Your task to perform on an android device: change your default location settings in chrome Image 0: 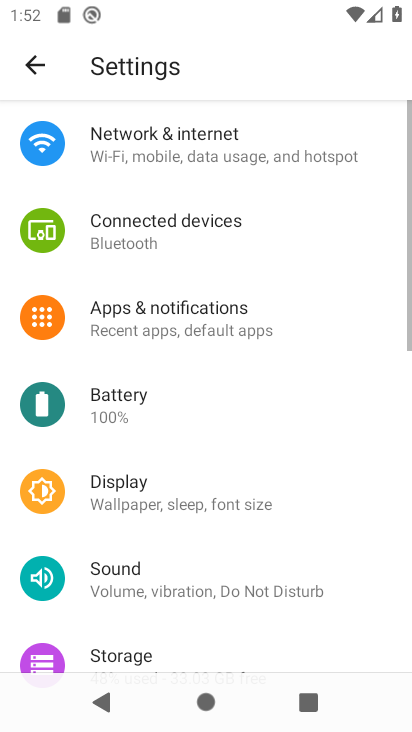
Step 0: press home button
Your task to perform on an android device: change your default location settings in chrome Image 1: 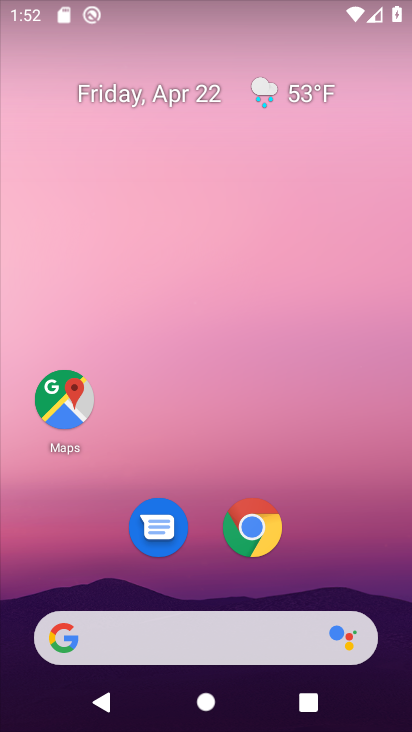
Step 1: click (268, 521)
Your task to perform on an android device: change your default location settings in chrome Image 2: 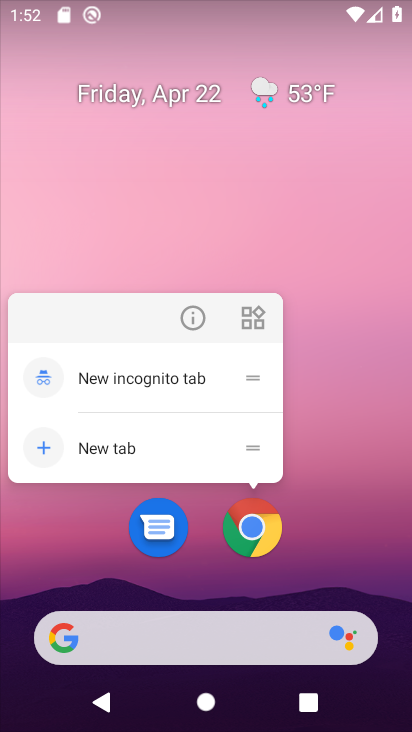
Step 2: click (262, 521)
Your task to perform on an android device: change your default location settings in chrome Image 3: 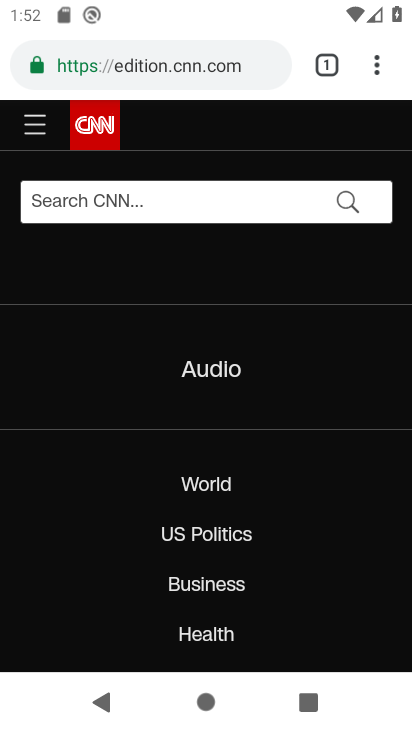
Step 3: click (378, 86)
Your task to perform on an android device: change your default location settings in chrome Image 4: 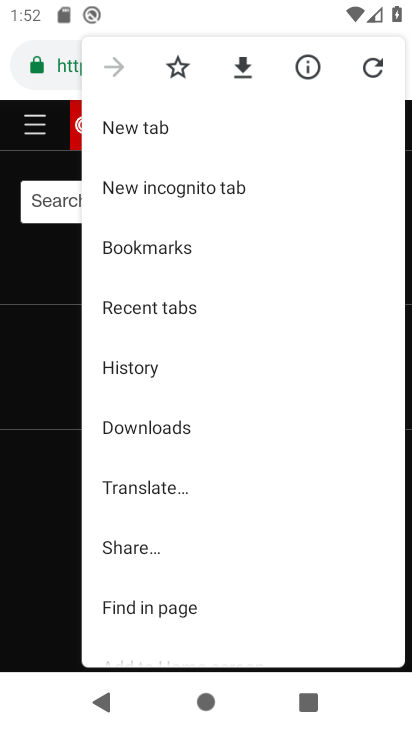
Step 4: drag from (232, 604) to (229, 224)
Your task to perform on an android device: change your default location settings in chrome Image 5: 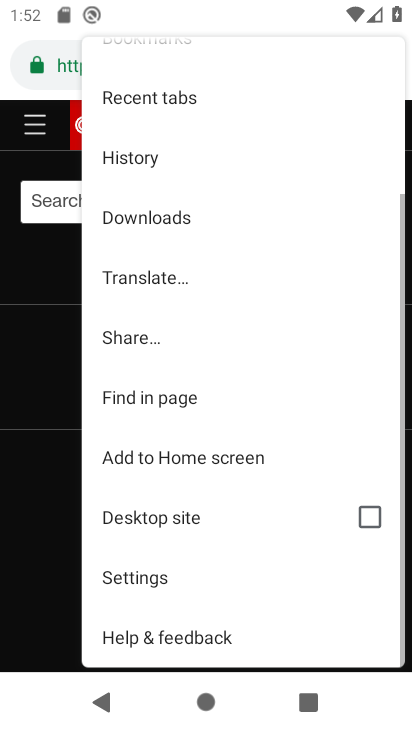
Step 5: click (155, 573)
Your task to perform on an android device: change your default location settings in chrome Image 6: 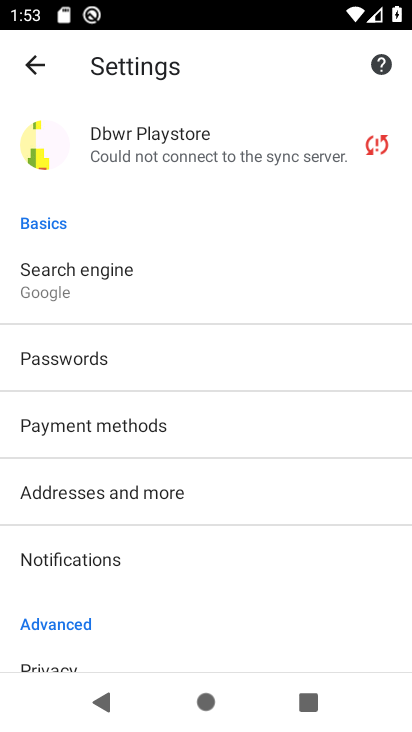
Step 6: drag from (138, 581) to (172, 200)
Your task to perform on an android device: change your default location settings in chrome Image 7: 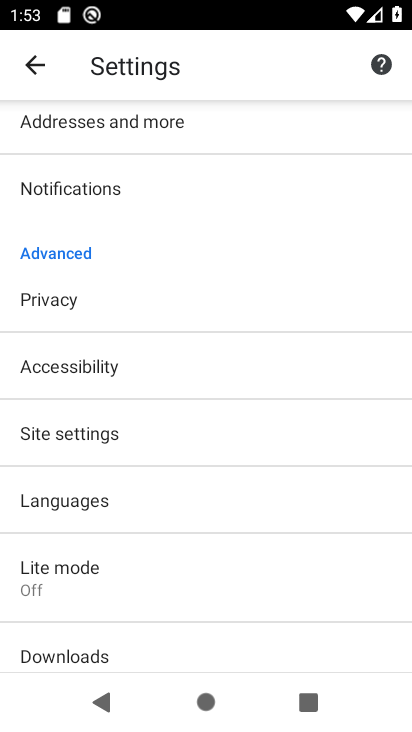
Step 7: click (112, 440)
Your task to perform on an android device: change your default location settings in chrome Image 8: 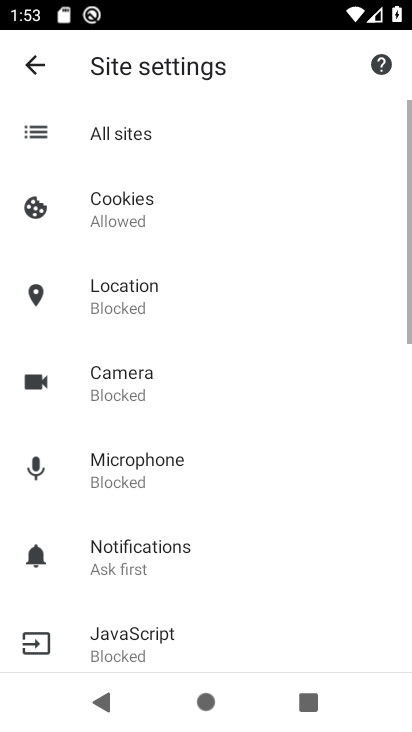
Step 8: click (146, 285)
Your task to perform on an android device: change your default location settings in chrome Image 9: 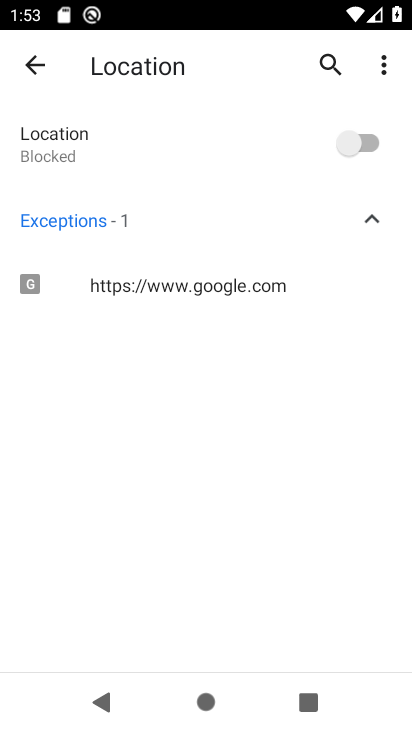
Step 9: click (343, 150)
Your task to perform on an android device: change your default location settings in chrome Image 10: 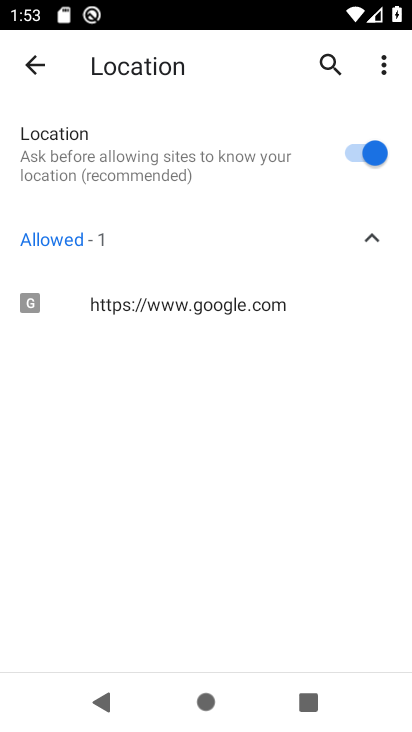
Step 10: task complete